Your task to perform on an android device: Open Youtube and go to "Your channel" Image 0: 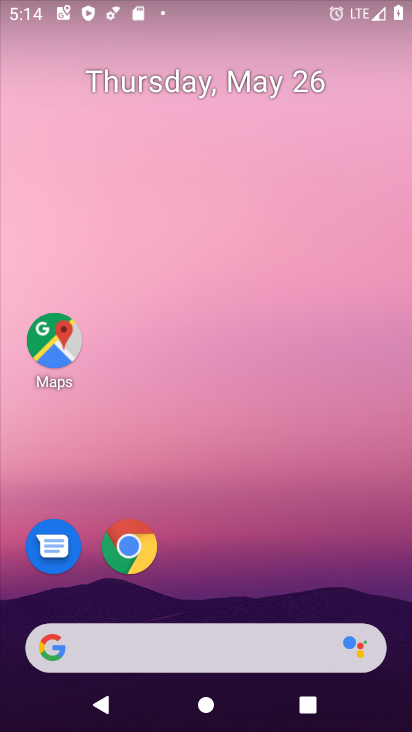
Step 0: drag from (246, 486) to (306, 27)
Your task to perform on an android device: Open Youtube and go to "Your channel" Image 1: 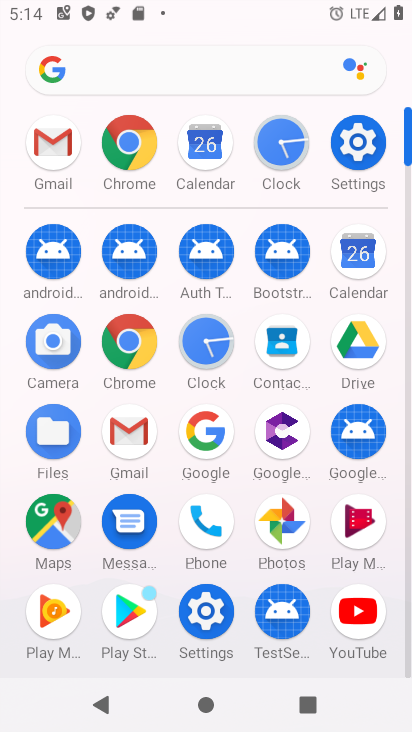
Step 1: click (355, 623)
Your task to perform on an android device: Open Youtube and go to "Your channel" Image 2: 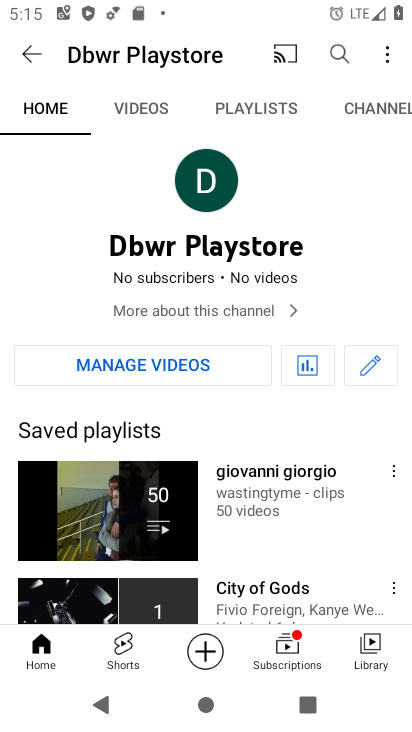
Step 2: task complete